Your task to perform on an android device: Go to Yahoo.com Image 0: 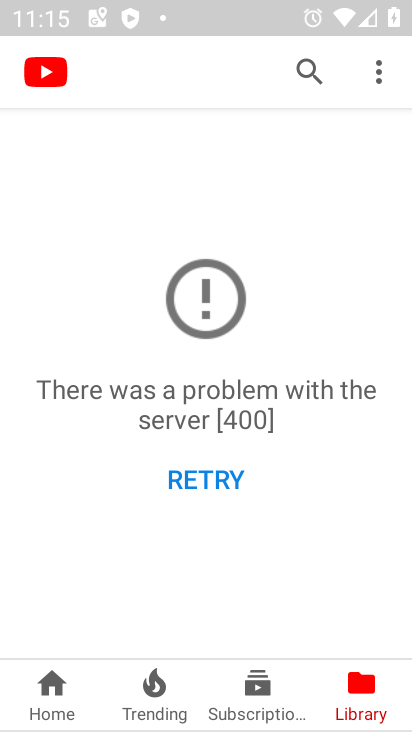
Step 0: press home button
Your task to perform on an android device: Go to Yahoo.com Image 1: 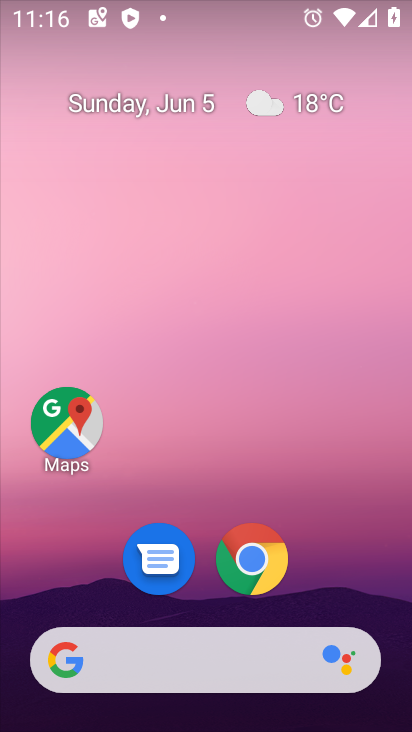
Step 1: click (260, 561)
Your task to perform on an android device: Go to Yahoo.com Image 2: 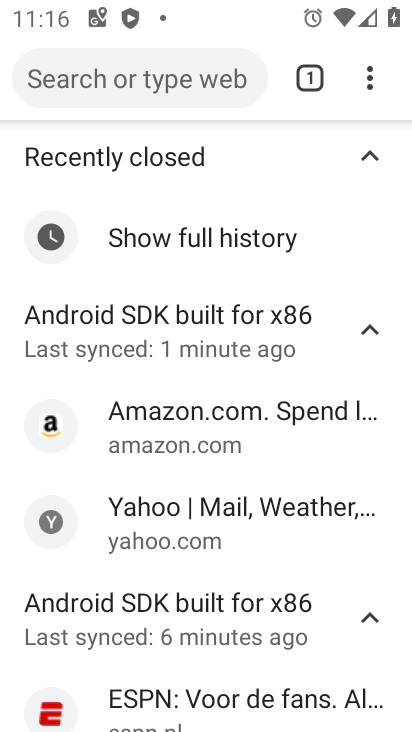
Step 2: click (154, 72)
Your task to perform on an android device: Go to Yahoo.com Image 3: 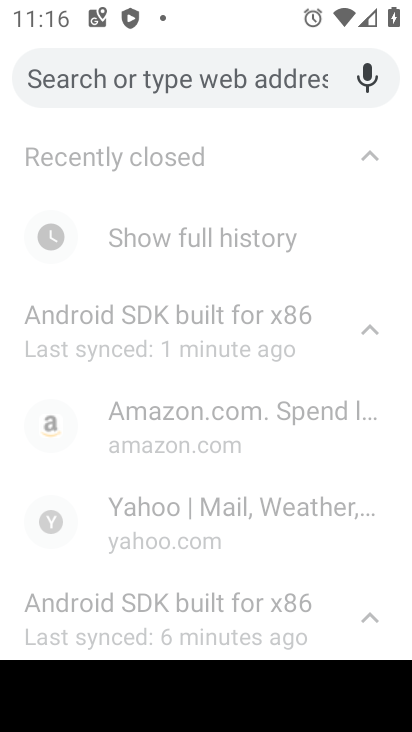
Step 3: type "Yahoo.com"
Your task to perform on an android device: Go to Yahoo.com Image 4: 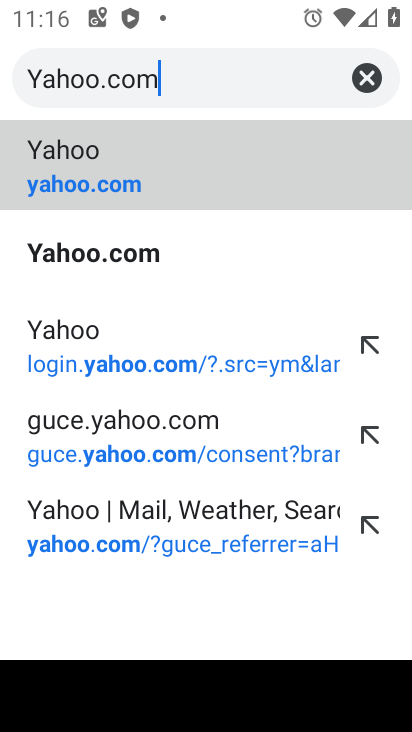
Step 4: click (112, 261)
Your task to perform on an android device: Go to Yahoo.com Image 5: 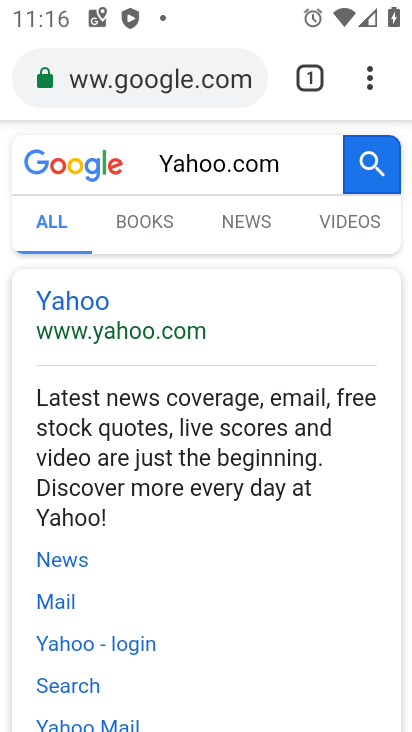
Step 5: task complete